Your task to perform on an android device: Search for sushi restaurants on Maps Image 0: 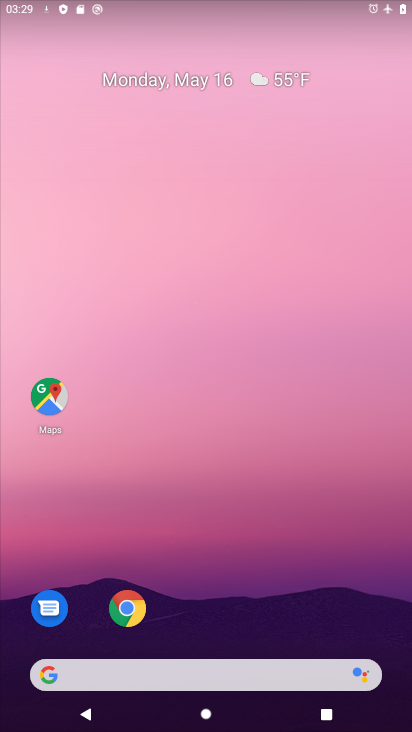
Step 0: click (45, 408)
Your task to perform on an android device: Search for sushi restaurants on Maps Image 1: 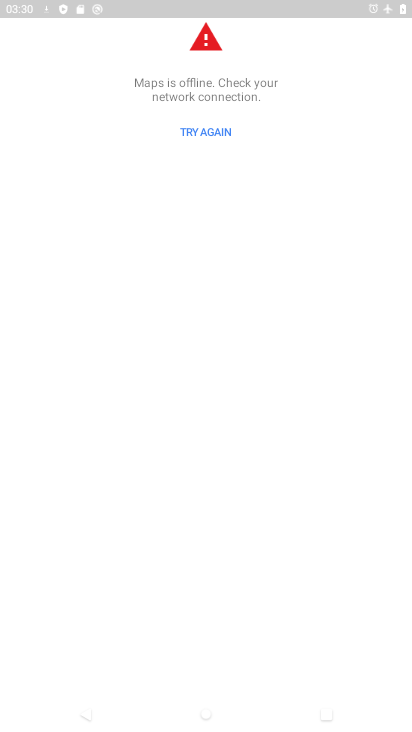
Step 1: task complete